Your task to perform on an android device: clear history in the chrome app Image 0: 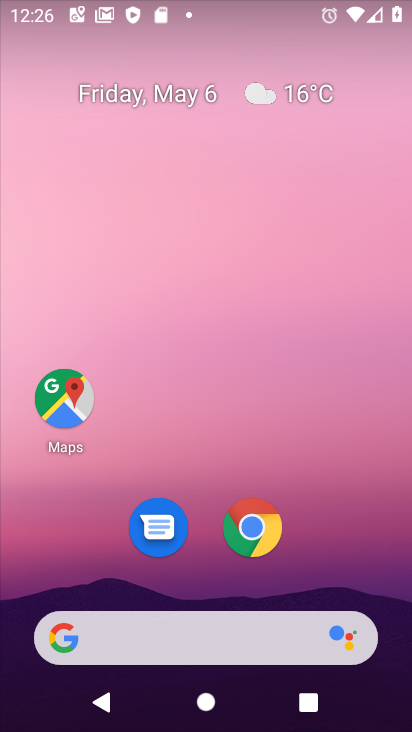
Step 0: click (249, 529)
Your task to perform on an android device: clear history in the chrome app Image 1: 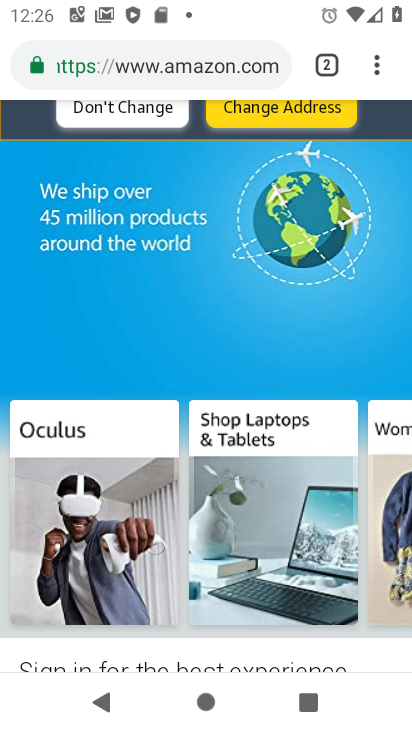
Step 1: drag from (382, 65) to (142, 373)
Your task to perform on an android device: clear history in the chrome app Image 2: 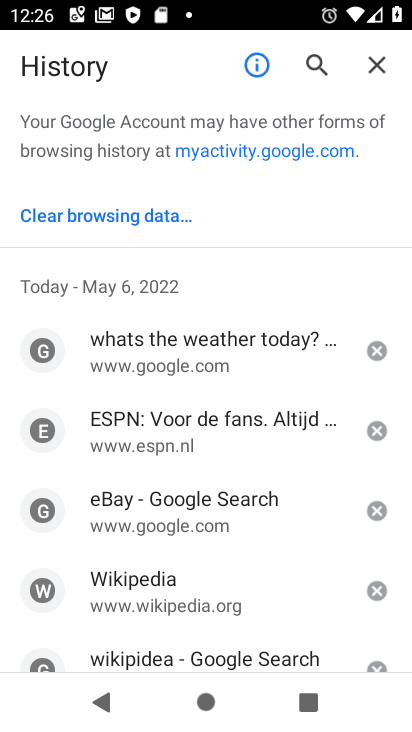
Step 2: click (105, 213)
Your task to perform on an android device: clear history in the chrome app Image 3: 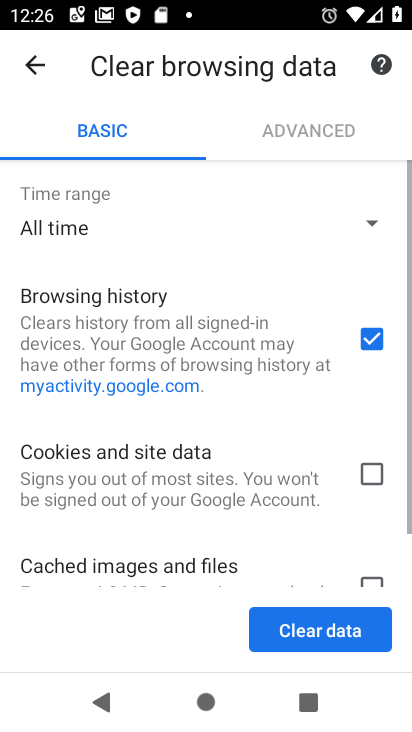
Step 3: click (290, 631)
Your task to perform on an android device: clear history in the chrome app Image 4: 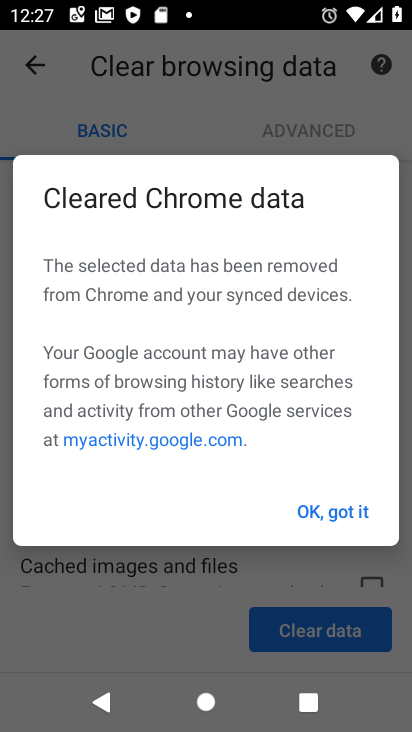
Step 4: click (341, 513)
Your task to perform on an android device: clear history in the chrome app Image 5: 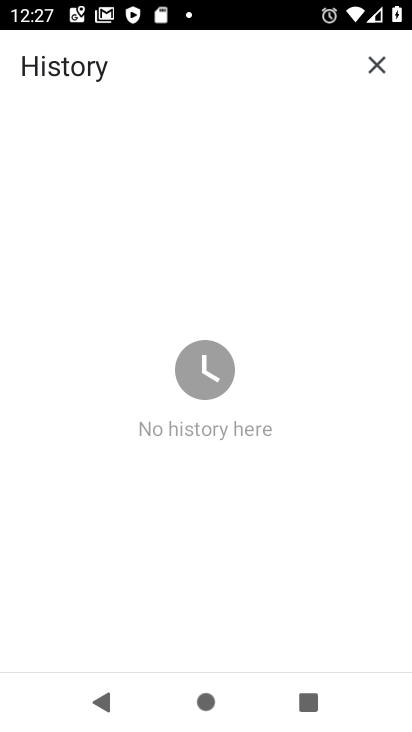
Step 5: task complete